Your task to perform on an android device: Open battery settings Image 0: 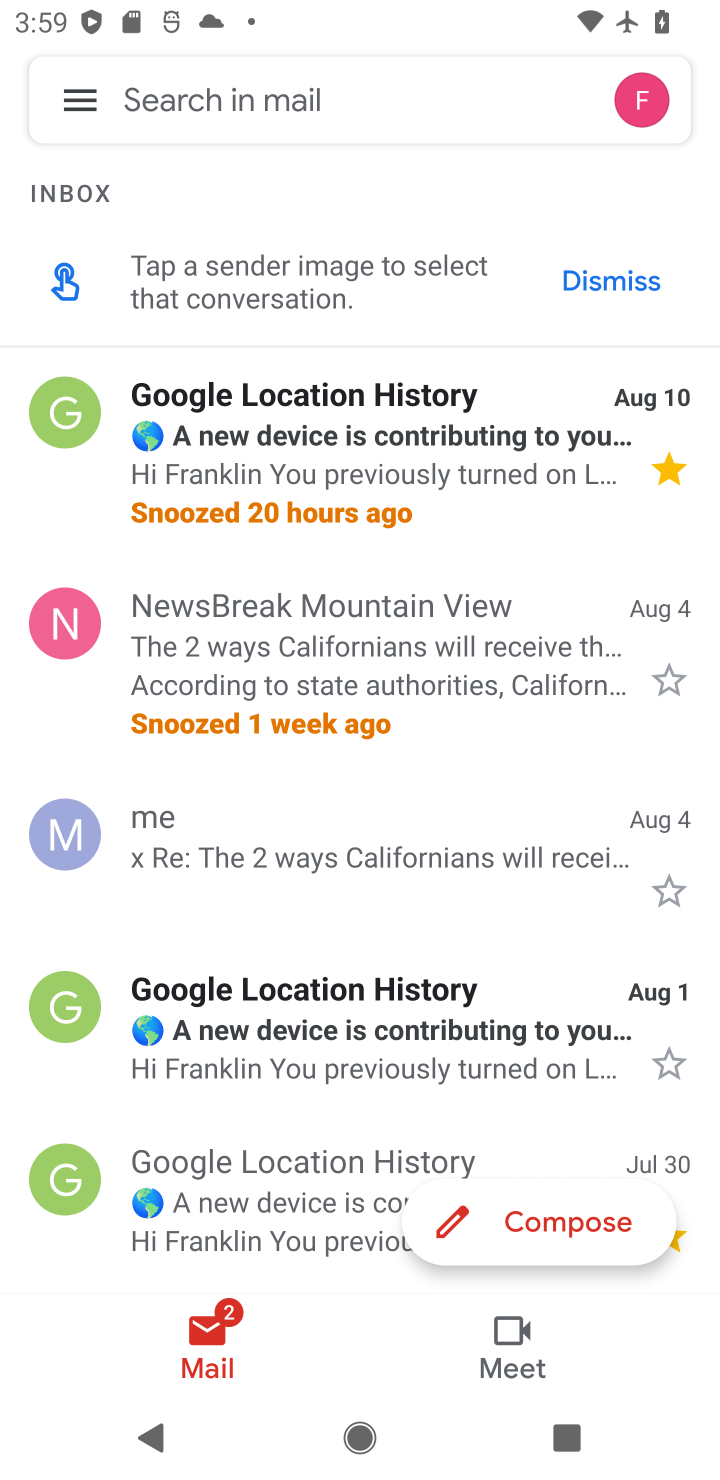
Step 0: press home button
Your task to perform on an android device: Open battery settings Image 1: 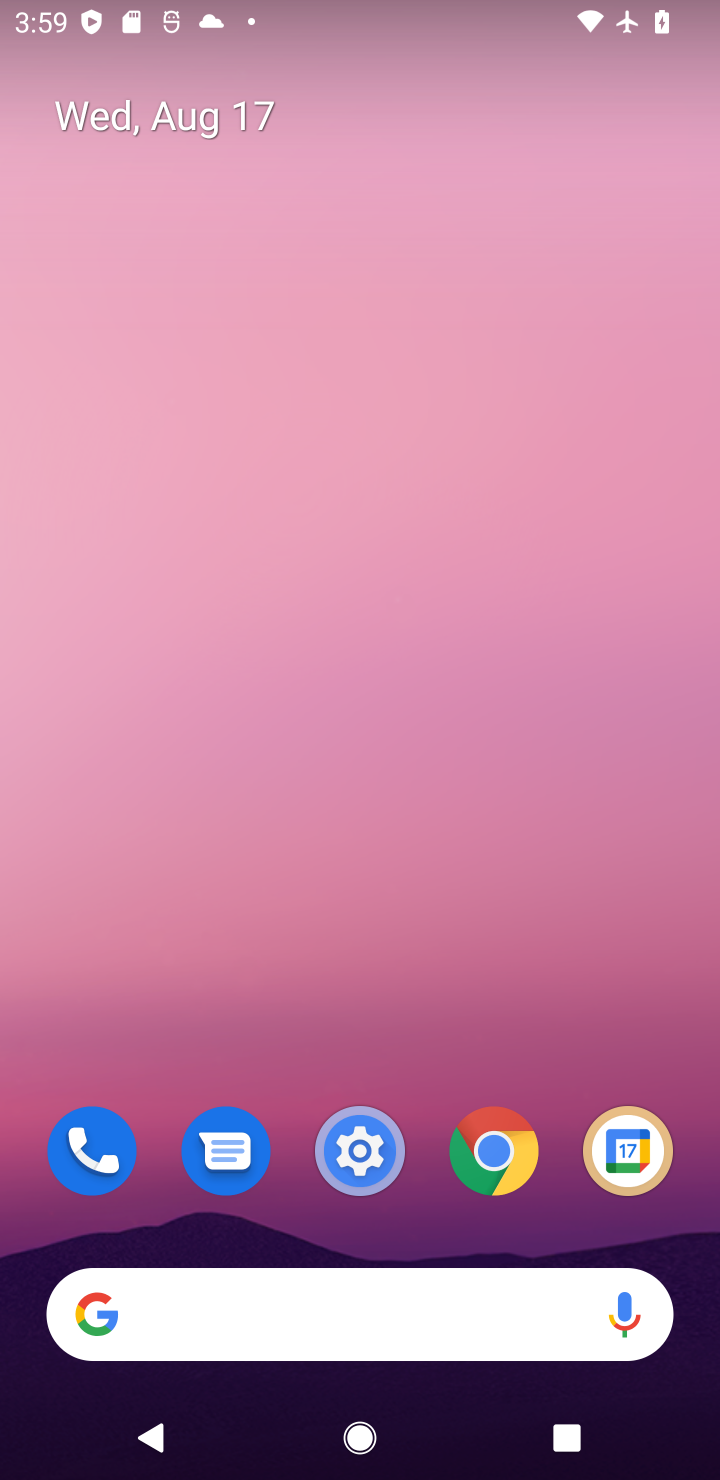
Step 1: drag from (350, 1326) to (346, 390)
Your task to perform on an android device: Open battery settings Image 2: 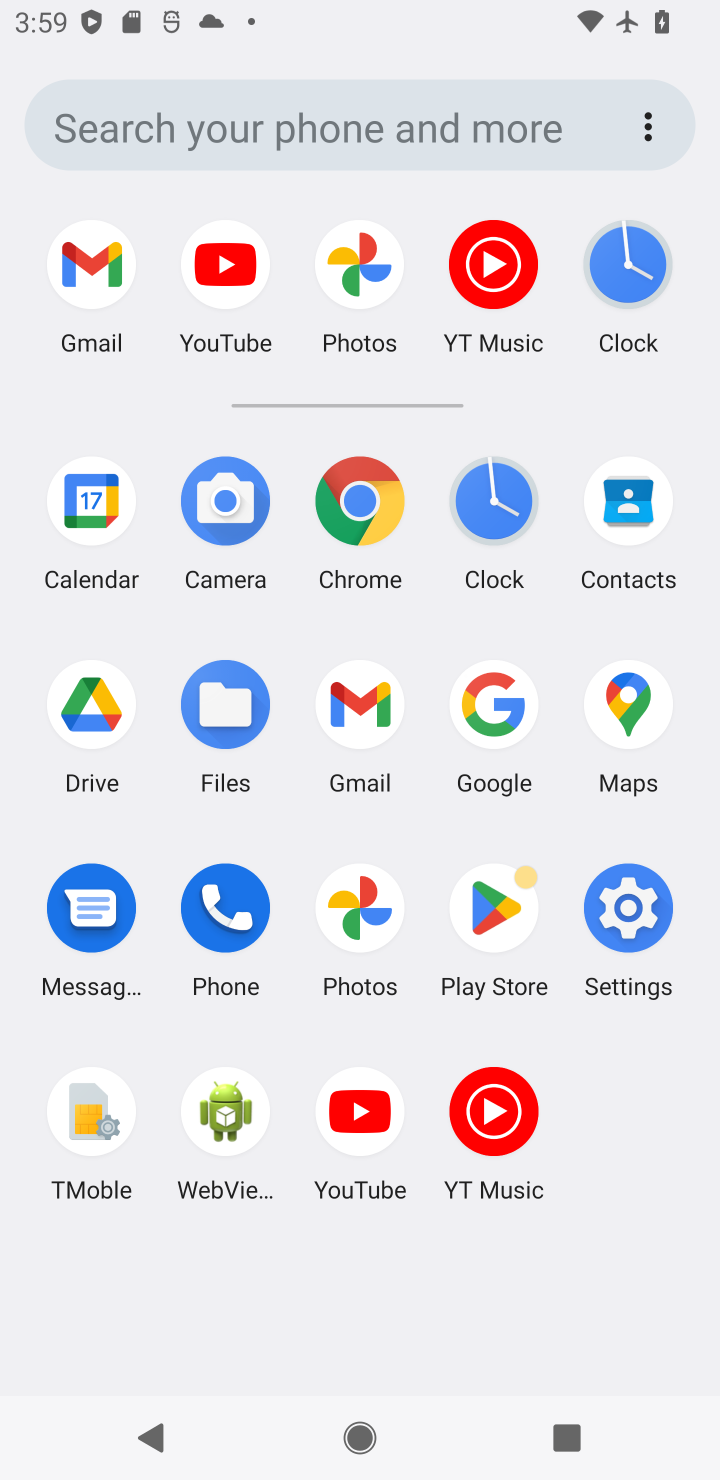
Step 2: click (633, 874)
Your task to perform on an android device: Open battery settings Image 3: 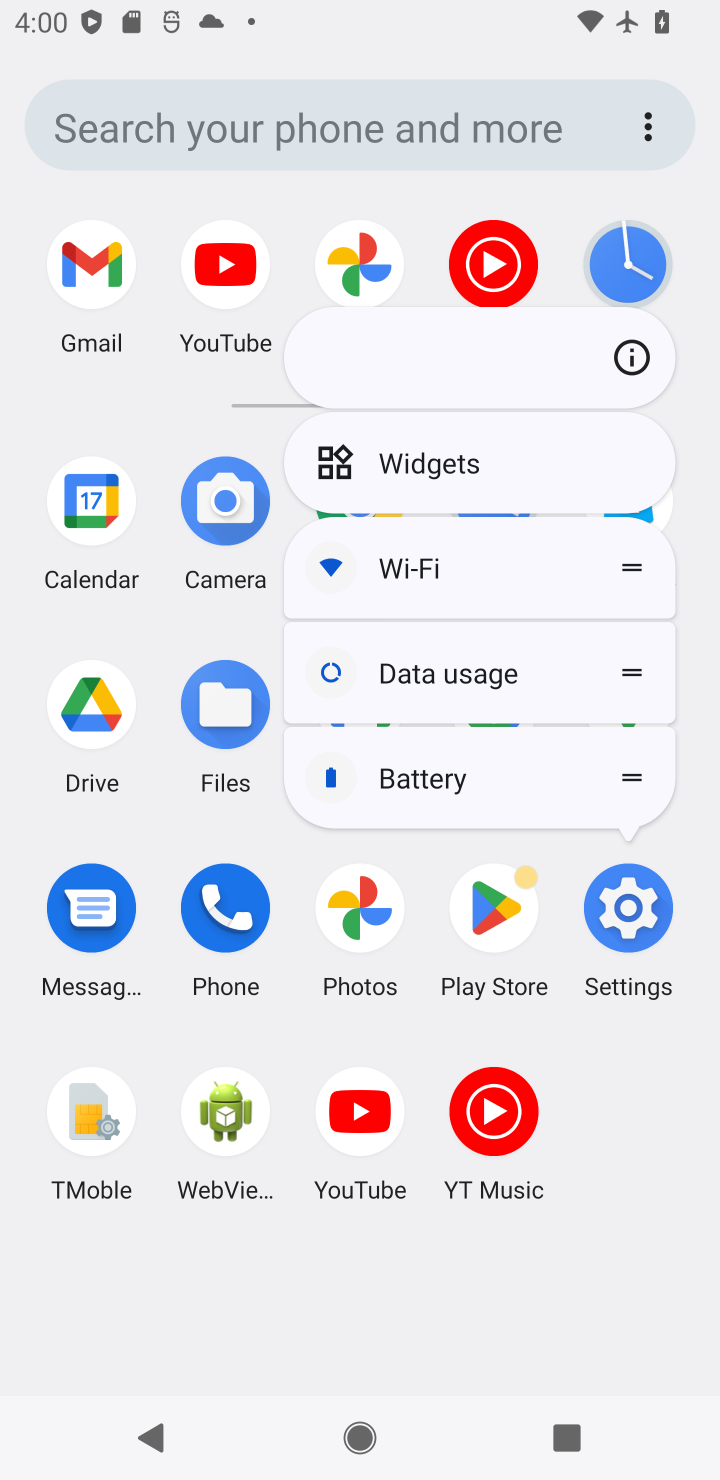
Step 3: click (607, 905)
Your task to perform on an android device: Open battery settings Image 4: 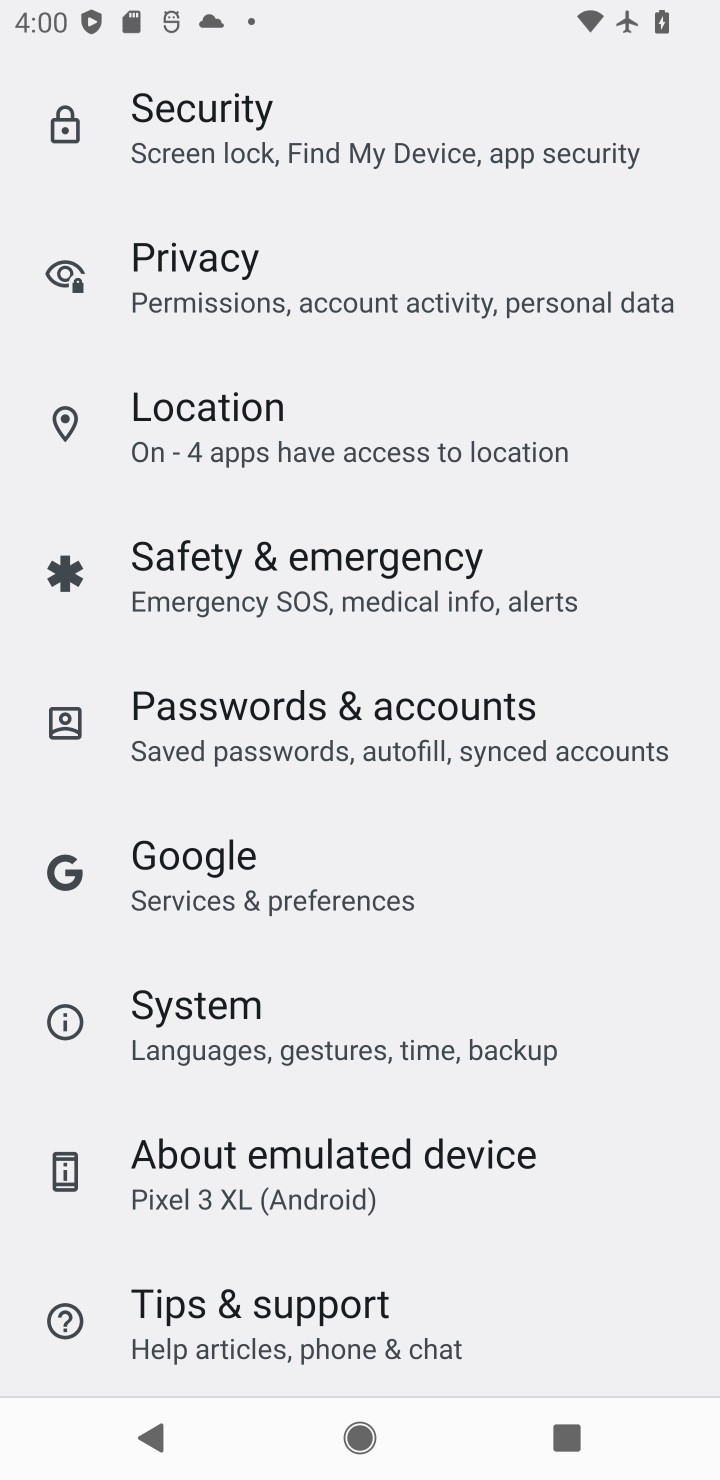
Step 4: drag from (287, 312) to (319, 1282)
Your task to perform on an android device: Open battery settings Image 5: 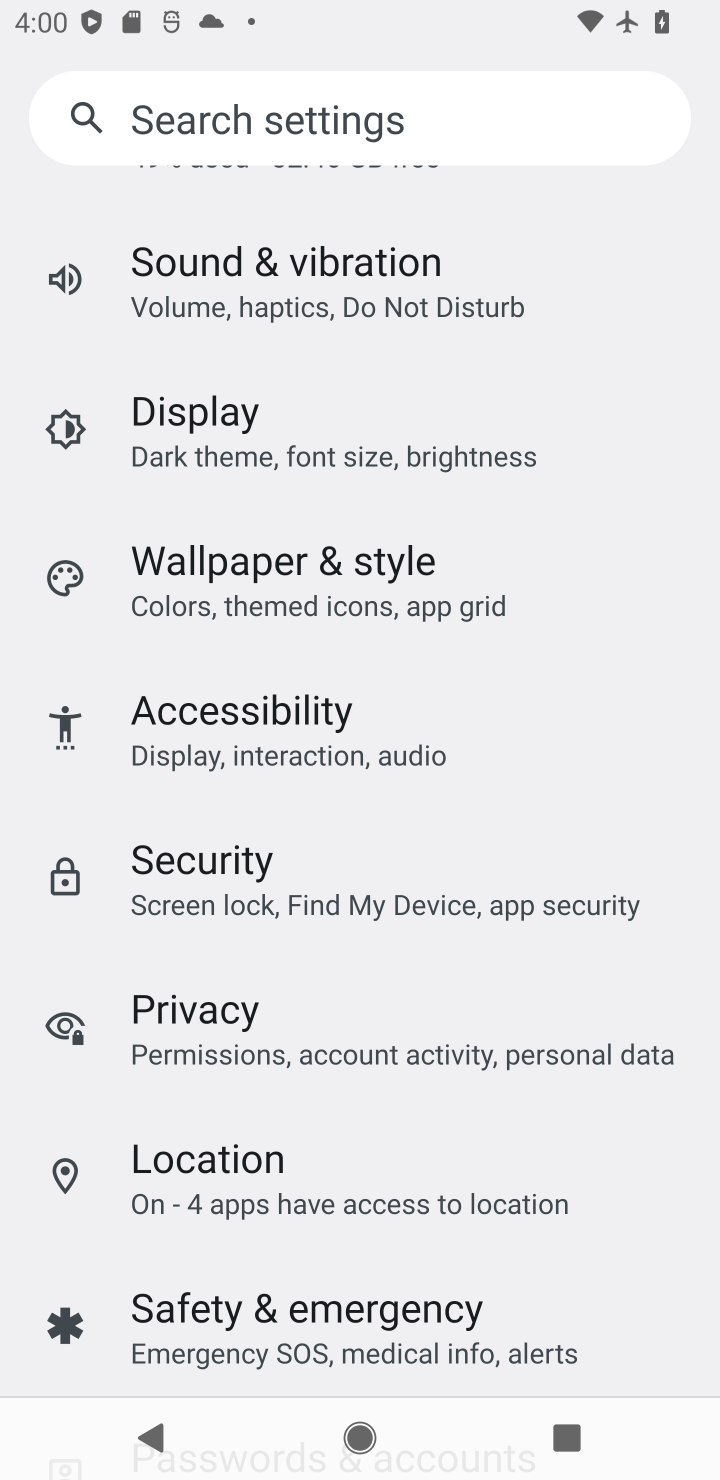
Step 5: drag from (383, 523) to (388, 1272)
Your task to perform on an android device: Open battery settings Image 6: 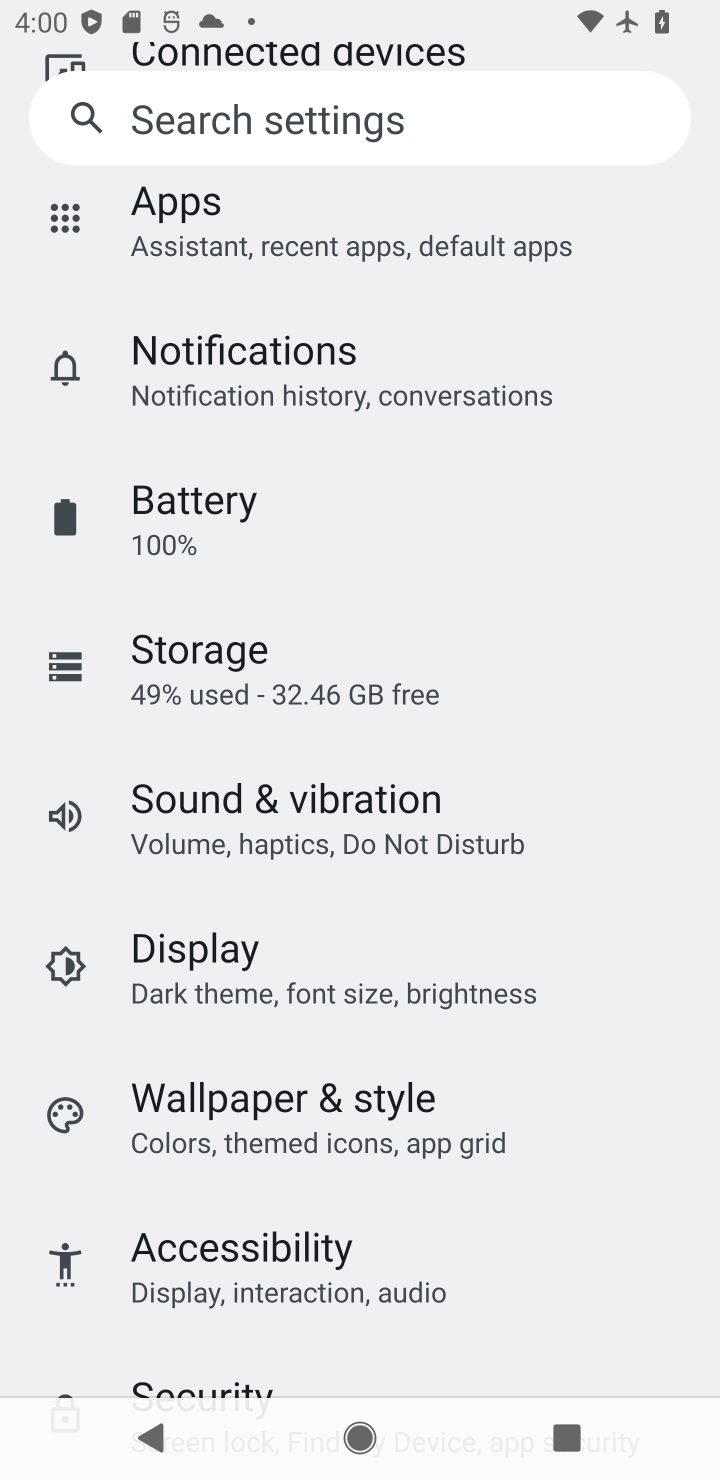
Step 6: click (251, 442)
Your task to perform on an android device: Open battery settings Image 7: 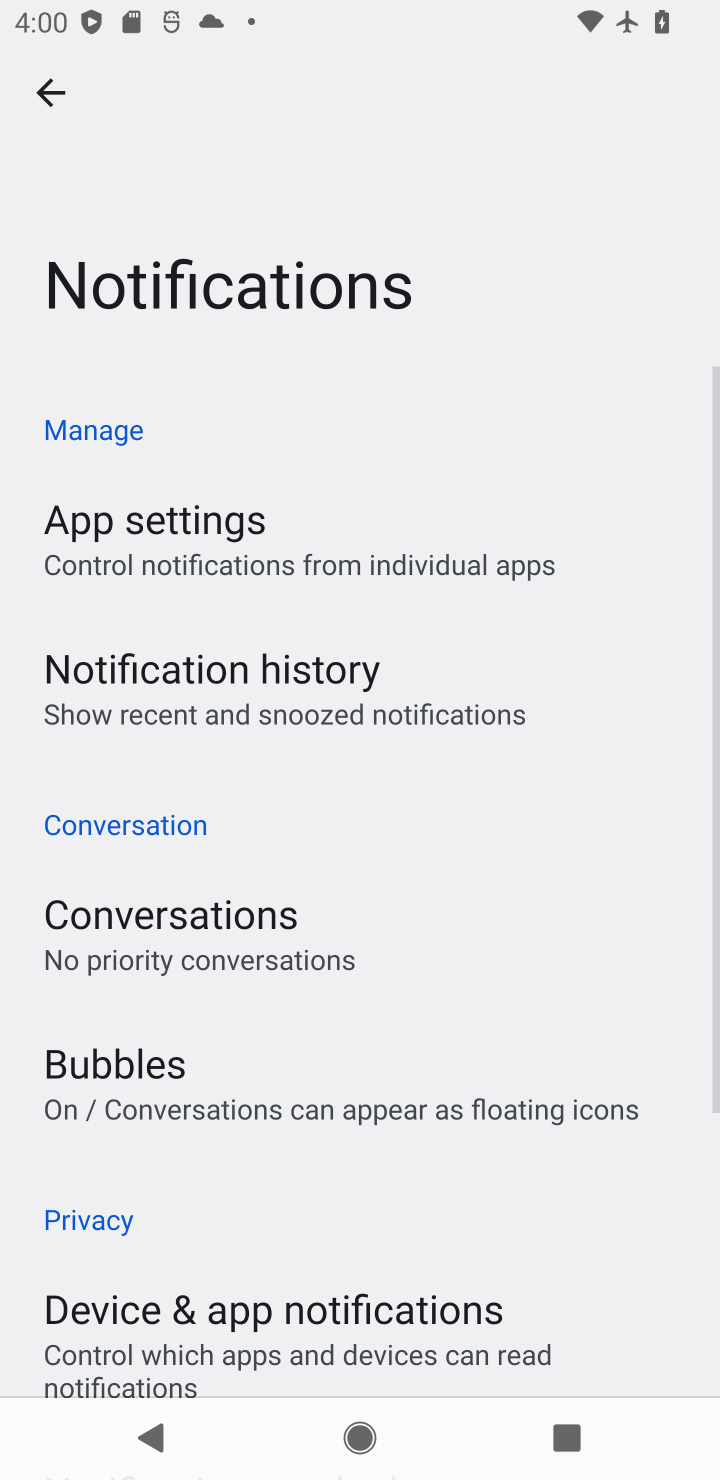
Step 7: click (44, 69)
Your task to perform on an android device: Open battery settings Image 8: 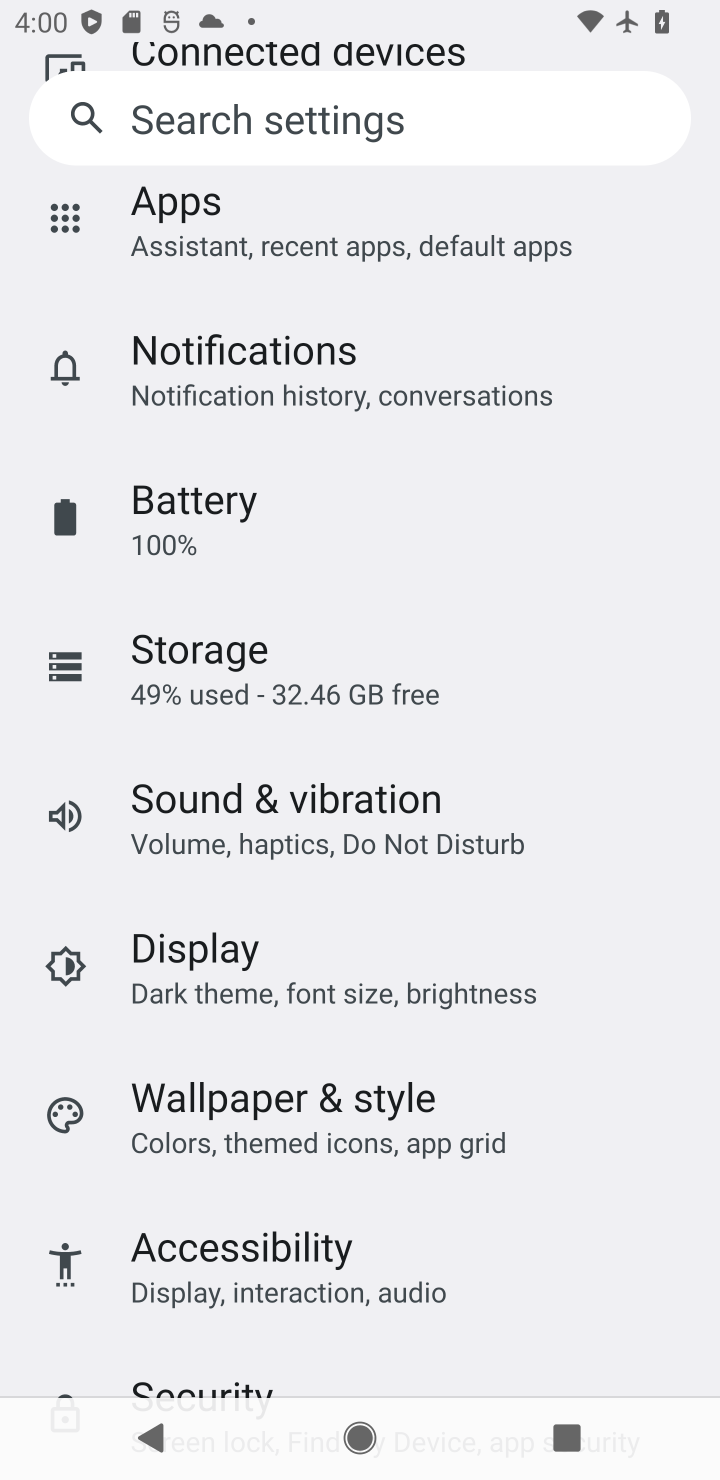
Step 8: click (164, 547)
Your task to perform on an android device: Open battery settings Image 9: 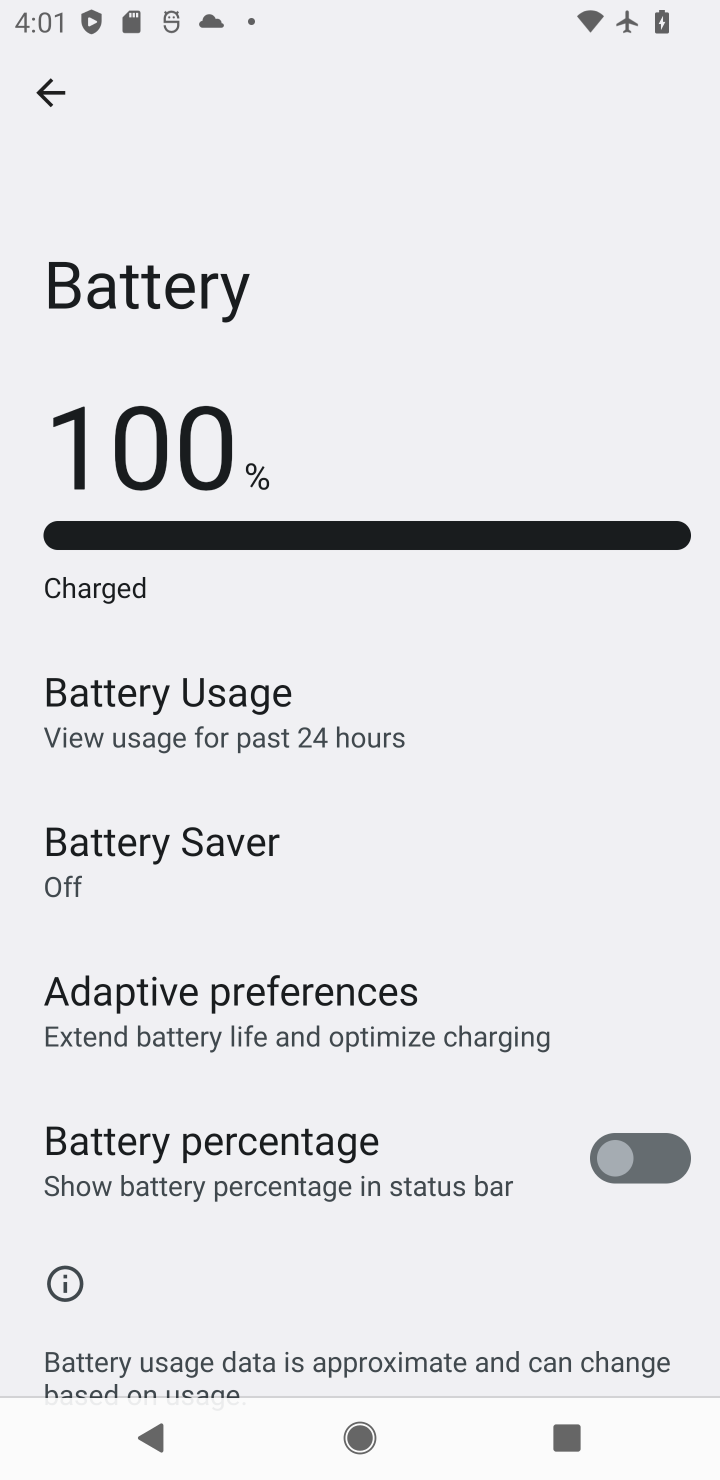
Step 9: task complete